Your task to perform on an android device: turn off data saver in the chrome app Image 0: 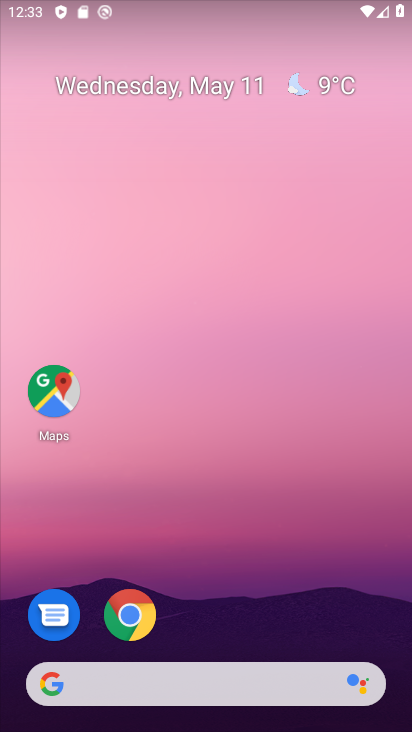
Step 0: drag from (338, 528) to (323, 126)
Your task to perform on an android device: turn off data saver in the chrome app Image 1: 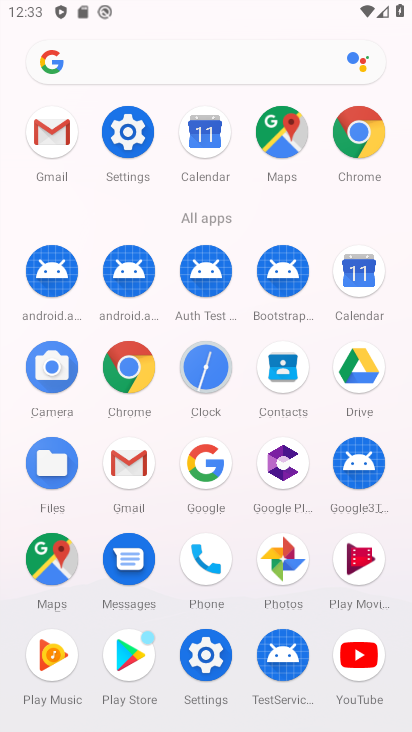
Step 1: click (365, 159)
Your task to perform on an android device: turn off data saver in the chrome app Image 2: 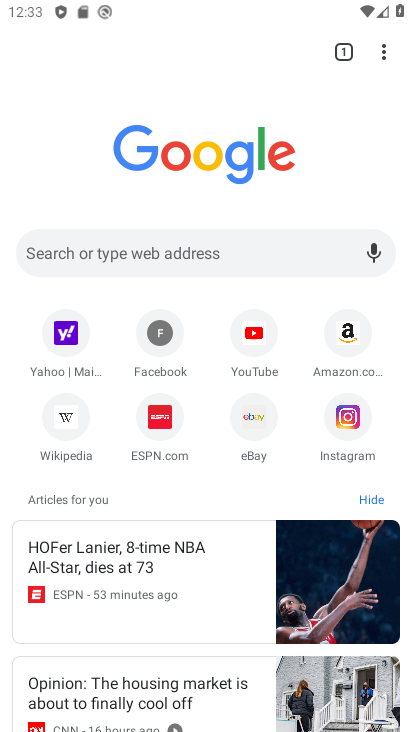
Step 2: click (384, 60)
Your task to perform on an android device: turn off data saver in the chrome app Image 3: 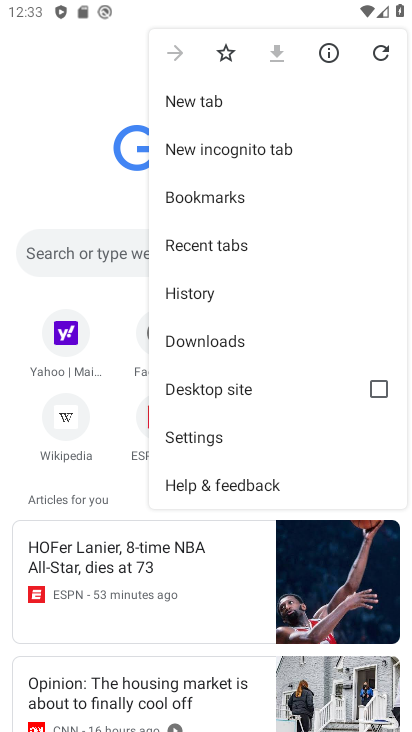
Step 3: click (242, 435)
Your task to perform on an android device: turn off data saver in the chrome app Image 4: 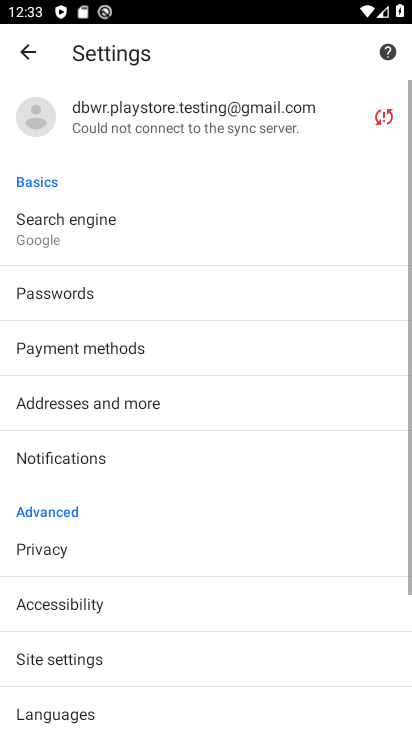
Step 4: drag from (209, 598) to (244, 305)
Your task to perform on an android device: turn off data saver in the chrome app Image 5: 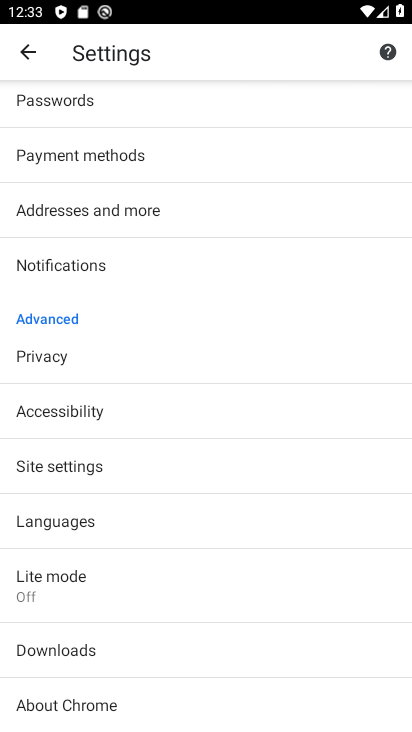
Step 5: click (174, 581)
Your task to perform on an android device: turn off data saver in the chrome app Image 6: 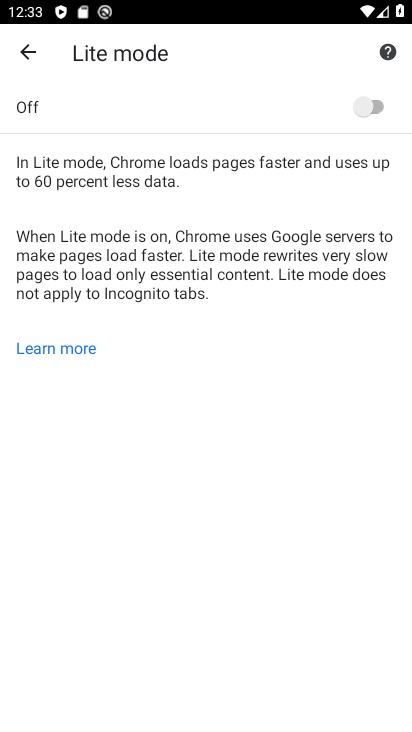
Step 6: click (388, 111)
Your task to perform on an android device: turn off data saver in the chrome app Image 7: 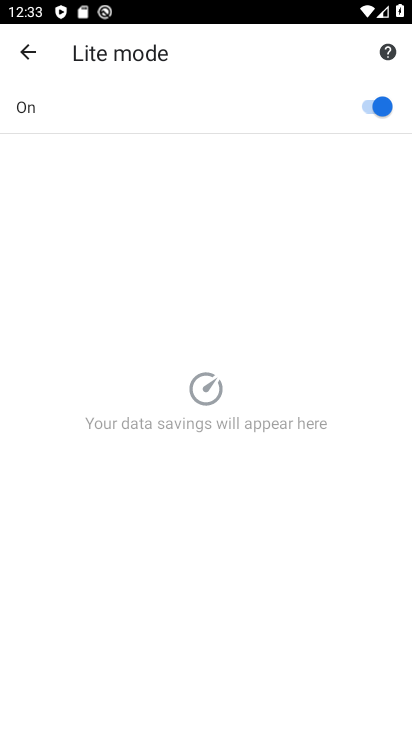
Step 7: task complete